Your task to perform on an android device: refresh tabs in the chrome app Image 0: 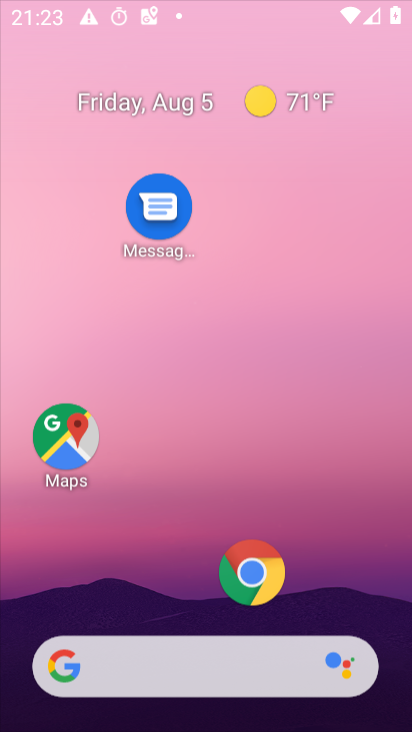
Step 0: press home button
Your task to perform on an android device: refresh tabs in the chrome app Image 1: 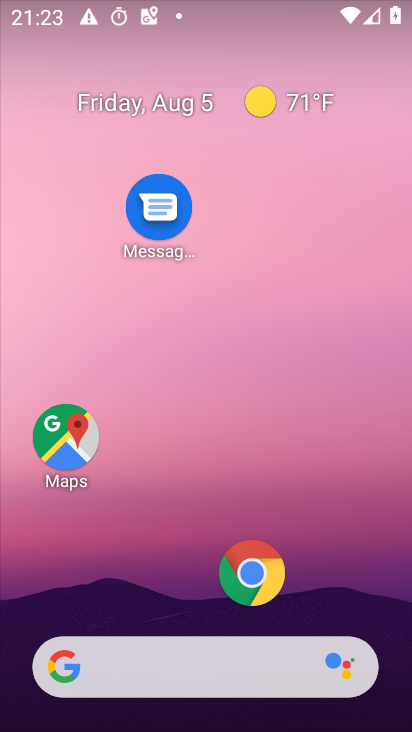
Step 1: click (248, 565)
Your task to perform on an android device: refresh tabs in the chrome app Image 2: 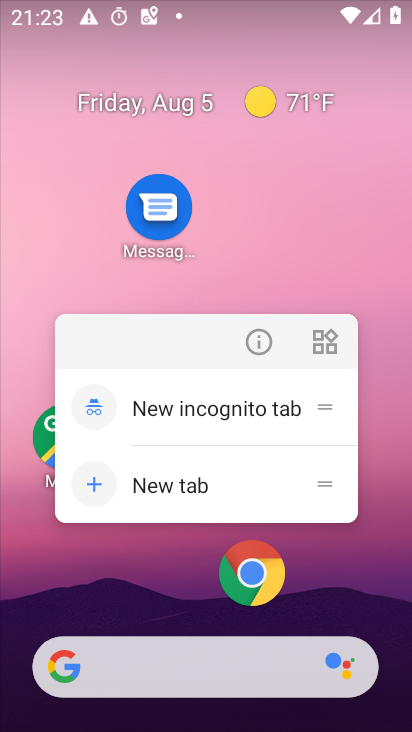
Step 2: click (248, 565)
Your task to perform on an android device: refresh tabs in the chrome app Image 3: 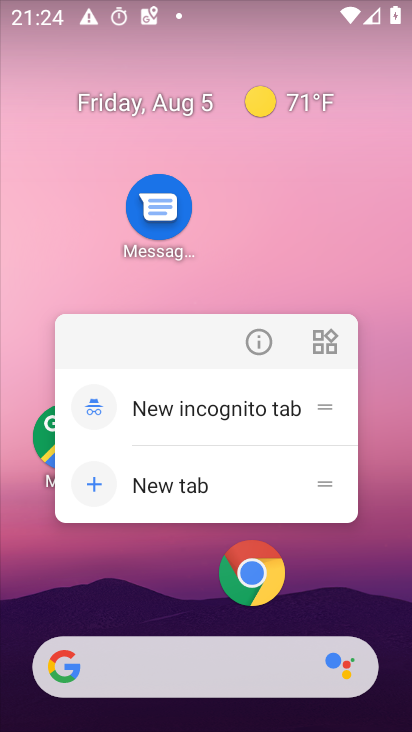
Step 3: click (249, 566)
Your task to perform on an android device: refresh tabs in the chrome app Image 4: 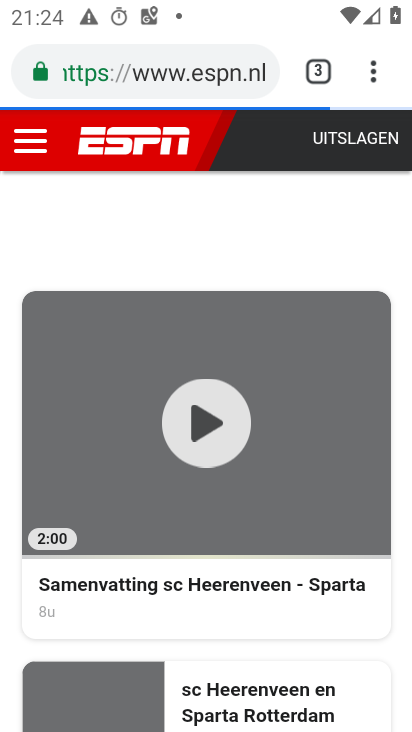
Step 4: click (369, 64)
Your task to perform on an android device: refresh tabs in the chrome app Image 5: 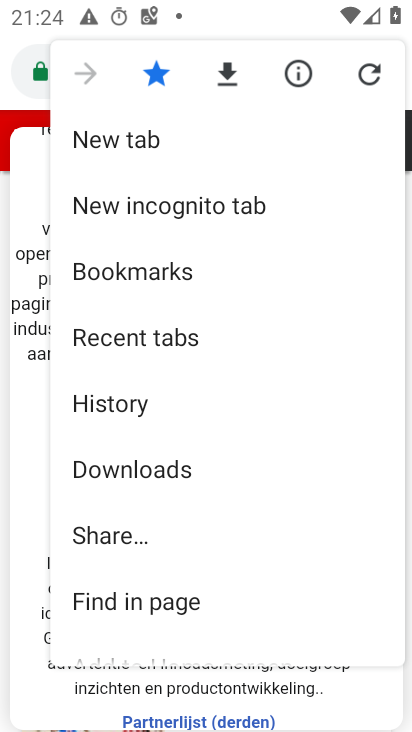
Step 5: click (368, 70)
Your task to perform on an android device: refresh tabs in the chrome app Image 6: 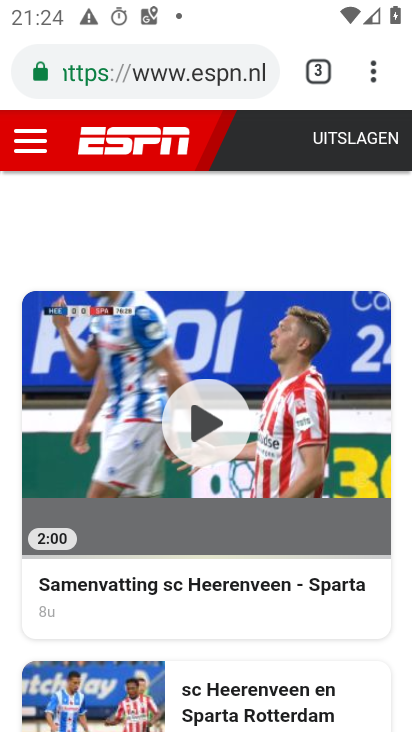
Step 6: task complete